Your task to perform on an android device: toggle location history Image 0: 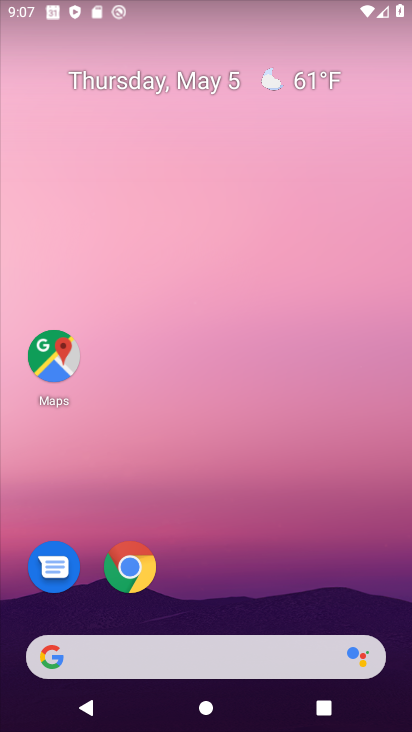
Step 0: drag from (228, 721) to (228, 211)
Your task to perform on an android device: toggle location history Image 1: 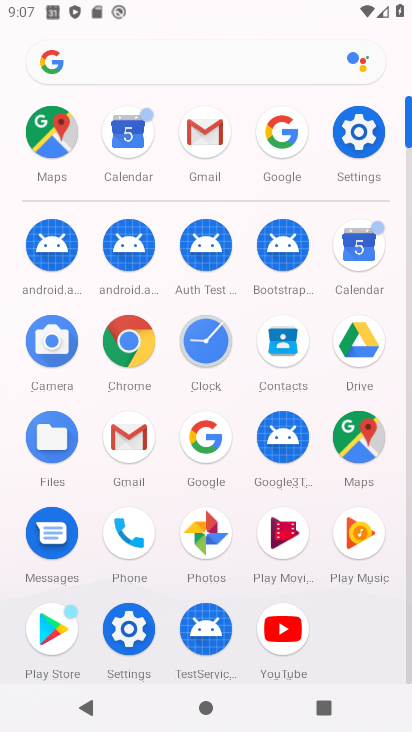
Step 1: click (359, 131)
Your task to perform on an android device: toggle location history Image 2: 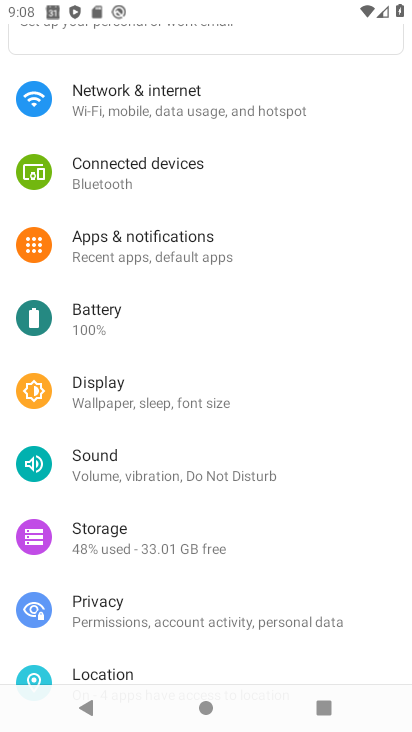
Step 2: click (122, 670)
Your task to perform on an android device: toggle location history Image 3: 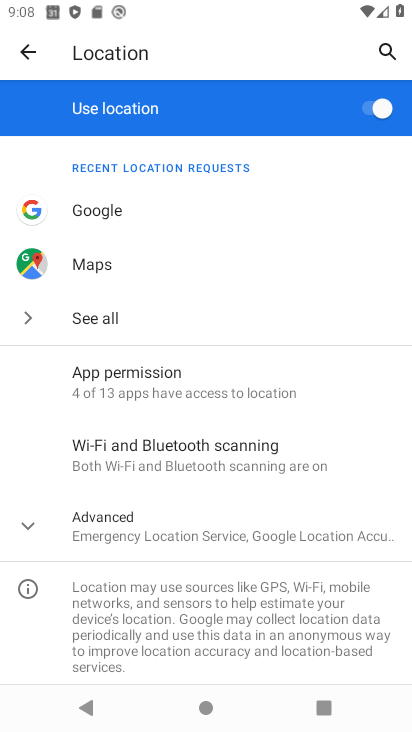
Step 3: click (124, 523)
Your task to perform on an android device: toggle location history Image 4: 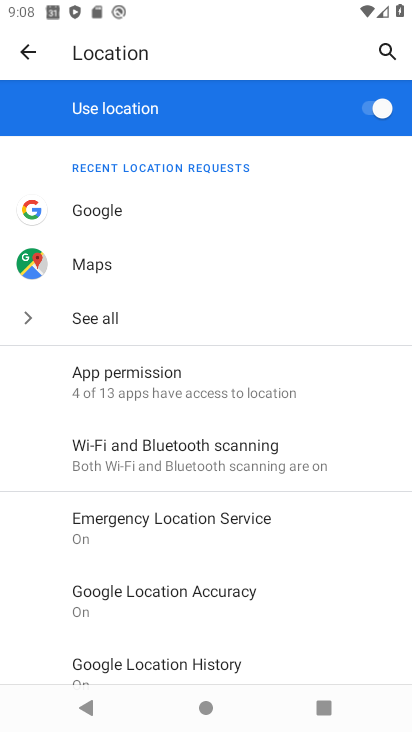
Step 4: click (138, 661)
Your task to perform on an android device: toggle location history Image 5: 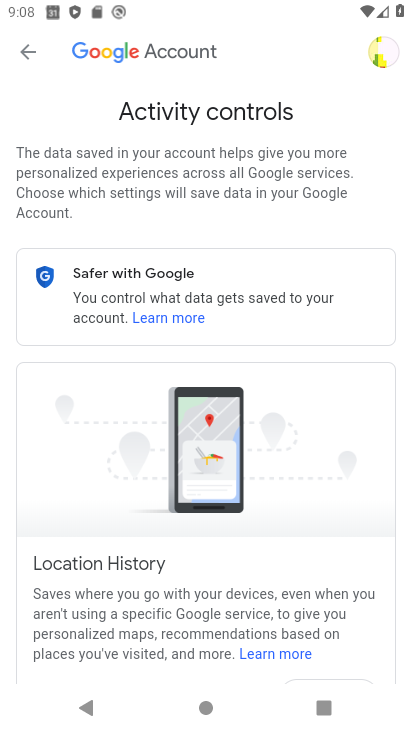
Step 5: drag from (144, 639) to (143, 261)
Your task to perform on an android device: toggle location history Image 6: 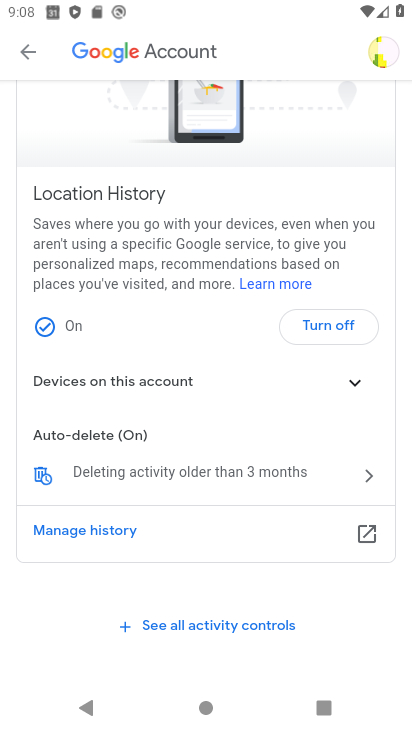
Step 6: click (336, 319)
Your task to perform on an android device: toggle location history Image 7: 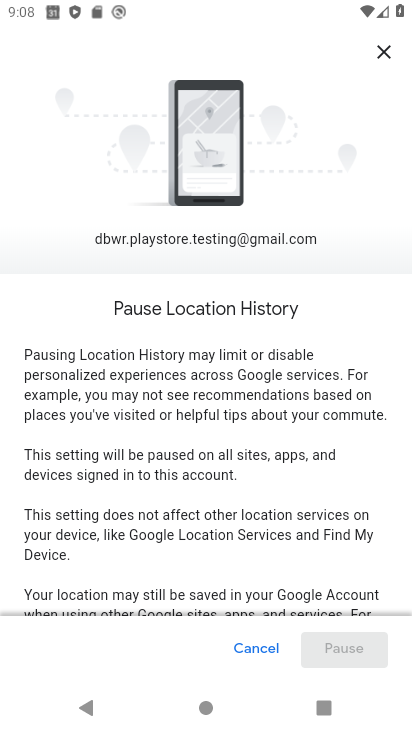
Step 7: drag from (195, 569) to (195, 223)
Your task to perform on an android device: toggle location history Image 8: 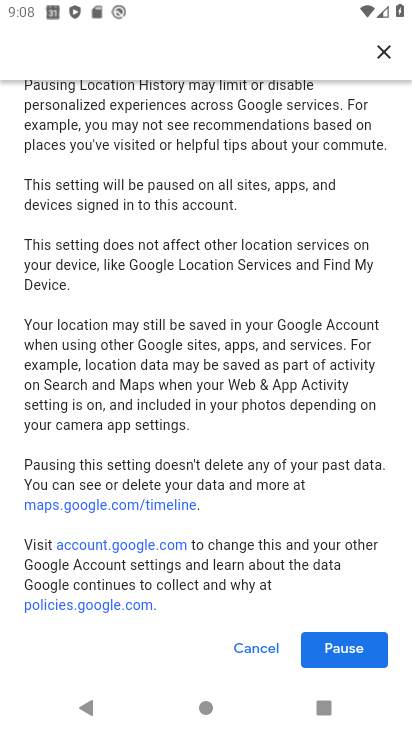
Step 8: drag from (222, 605) to (220, 273)
Your task to perform on an android device: toggle location history Image 9: 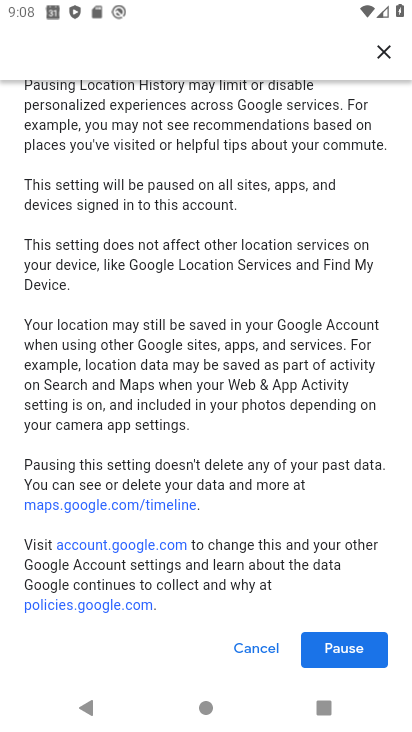
Step 9: click (343, 651)
Your task to perform on an android device: toggle location history Image 10: 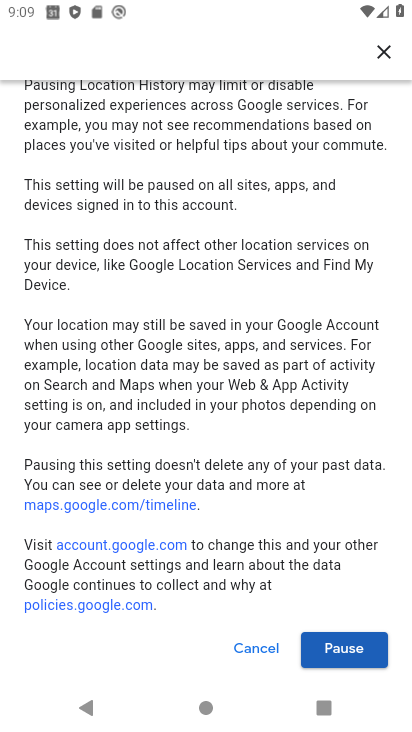
Step 10: click (338, 651)
Your task to perform on an android device: toggle location history Image 11: 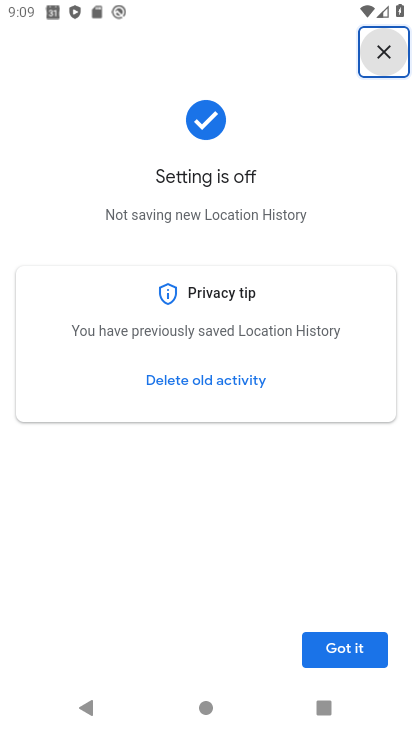
Step 11: click (338, 651)
Your task to perform on an android device: toggle location history Image 12: 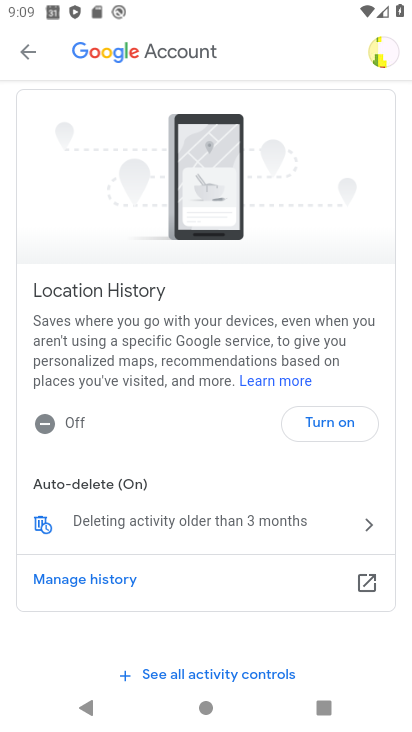
Step 12: task complete